Your task to perform on an android device: What's on my calendar today? Image 0: 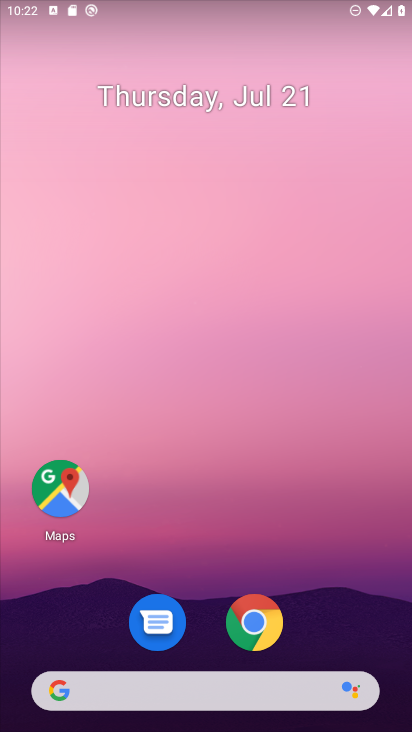
Step 0: drag from (189, 713) to (128, 2)
Your task to perform on an android device: What's on my calendar today? Image 1: 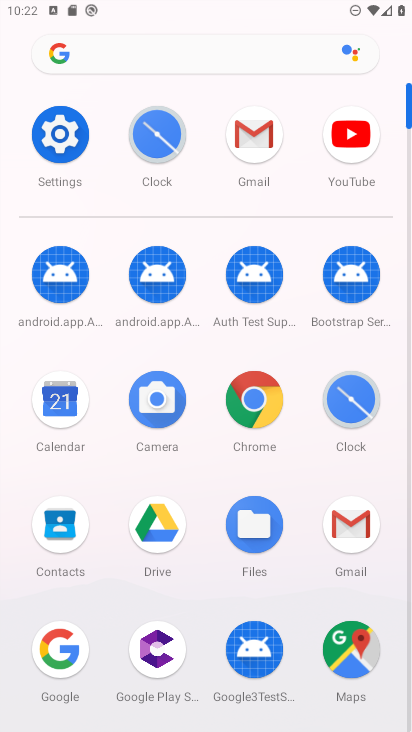
Step 1: click (64, 396)
Your task to perform on an android device: What's on my calendar today? Image 2: 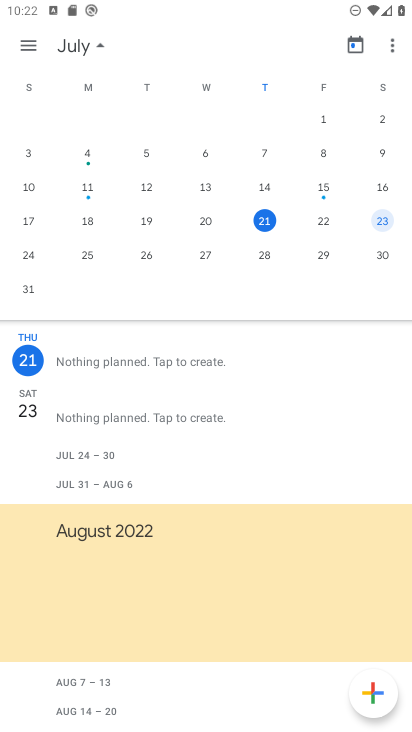
Step 2: click (265, 217)
Your task to perform on an android device: What's on my calendar today? Image 3: 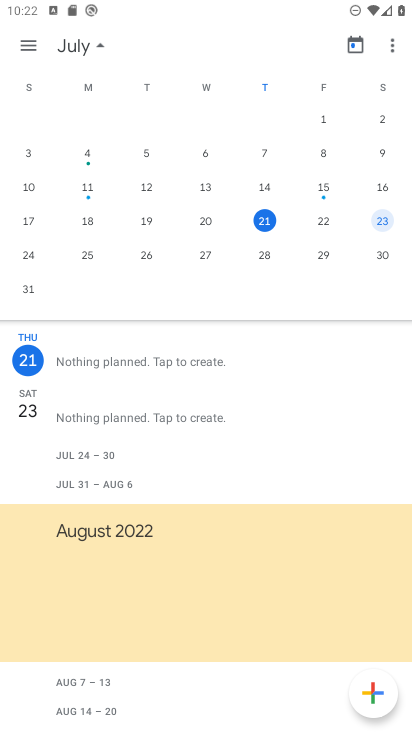
Step 3: click (265, 217)
Your task to perform on an android device: What's on my calendar today? Image 4: 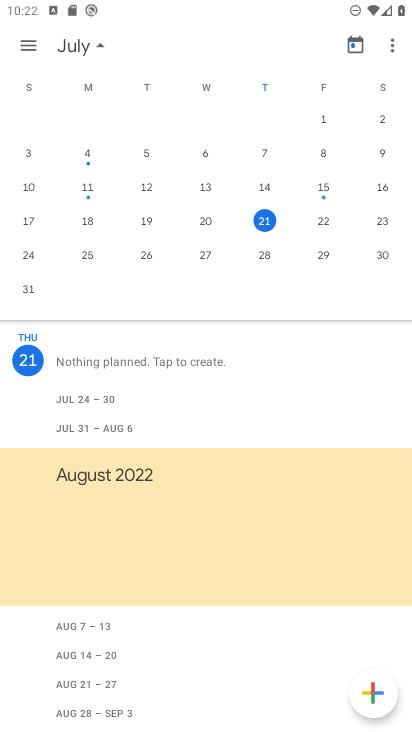
Step 4: click (220, 362)
Your task to perform on an android device: What's on my calendar today? Image 5: 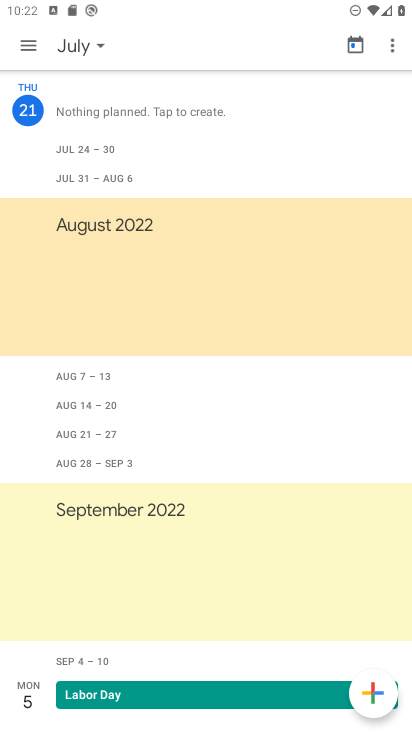
Step 5: task complete